Your task to perform on an android device: Open internet settings Image 0: 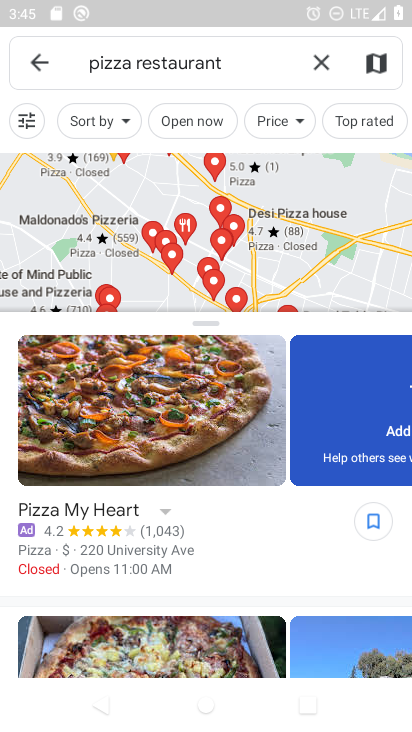
Step 0: press home button
Your task to perform on an android device: Open internet settings Image 1: 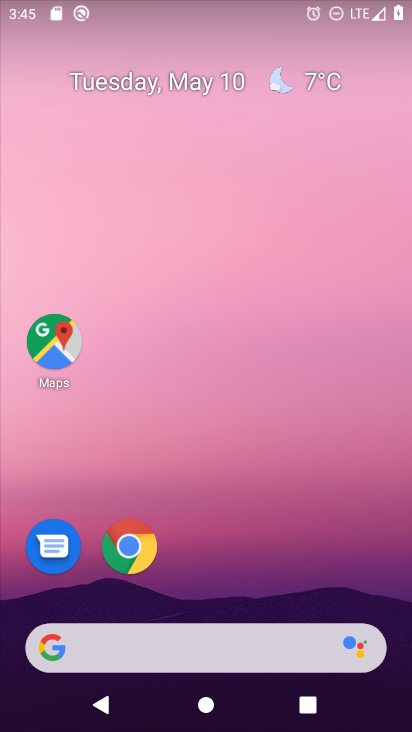
Step 1: drag from (227, 559) to (297, 8)
Your task to perform on an android device: Open internet settings Image 2: 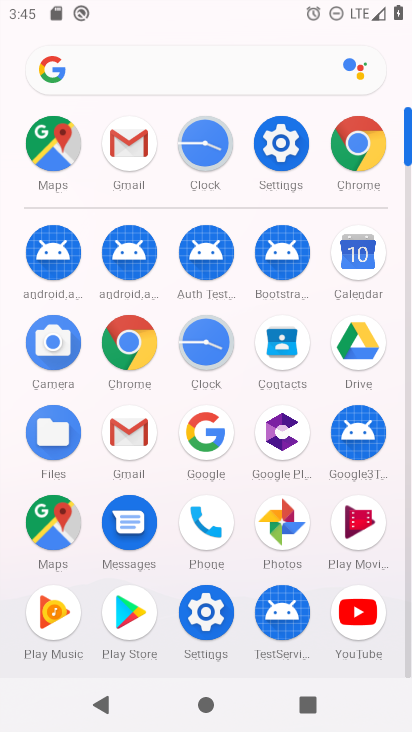
Step 2: click (290, 158)
Your task to perform on an android device: Open internet settings Image 3: 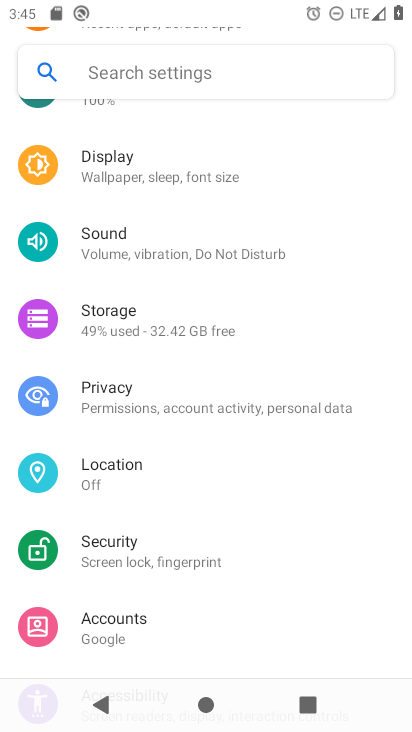
Step 3: drag from (223, 191) to (256, 722)
Your task to perform on an android device: Open internet settings Image 4: 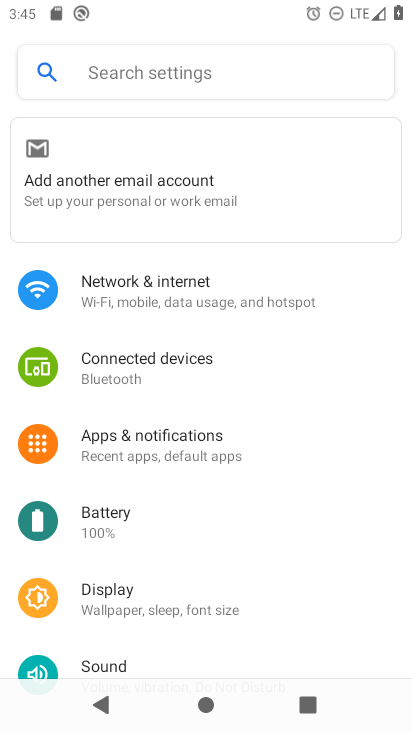
Step 4: click (178, 302)
Your task to perform on an android device: Open internet settings Image 5: 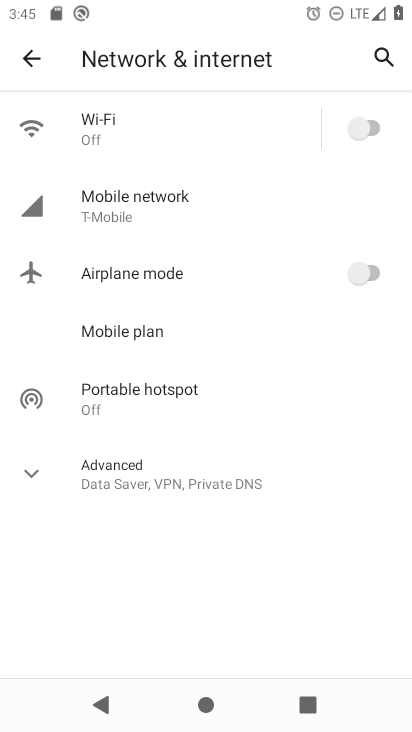
Step 5: task complete